Your task to perform on an android device: add a contact Image 0: 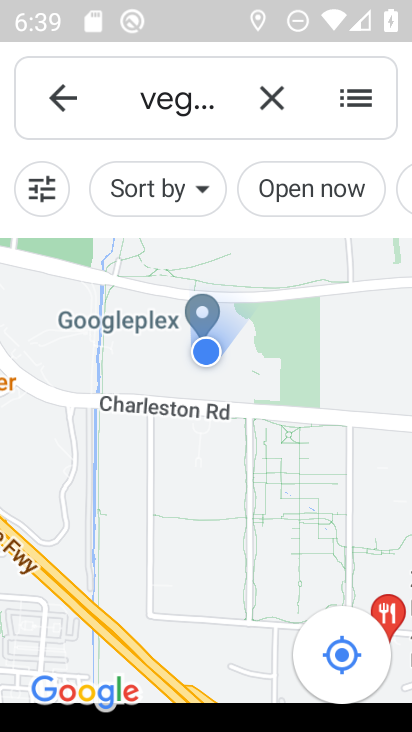
Step 0: press home button
Your task to perform on an android device: add a contact Image 1: 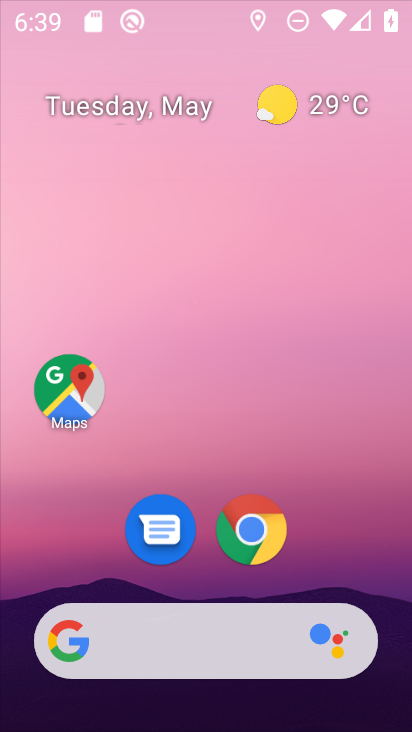
Step 1: drag from (349, 508) to (267, 99)
Your task to perform on an android device: add a contact Image 2: 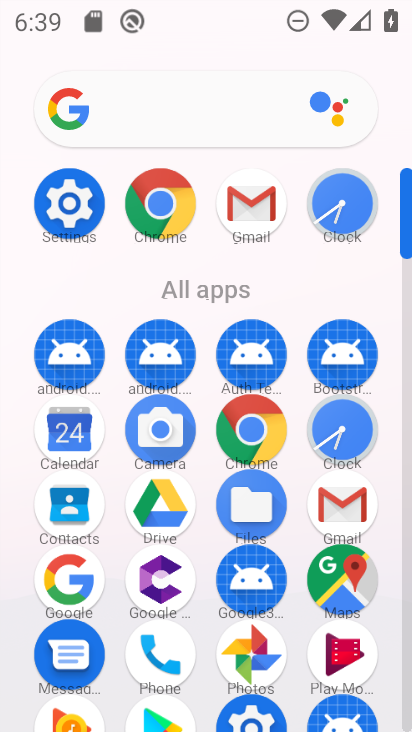
Step 2: click (64, 507)
Your task to perform on an android device: add a contact Image 3: 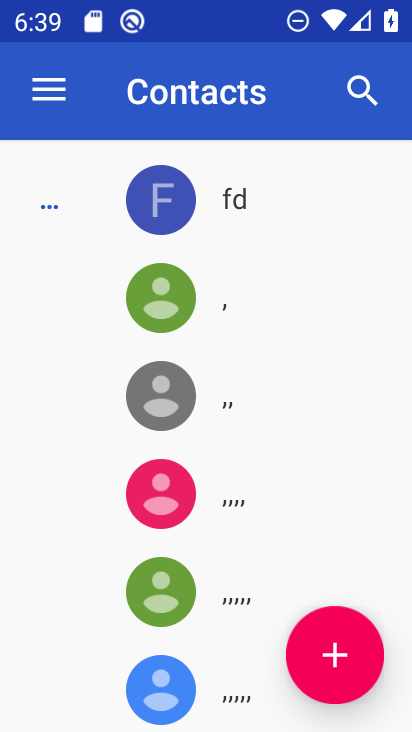
Step 3: click (342, 647)
Your task to perform on an android device: add a contact Image 4: 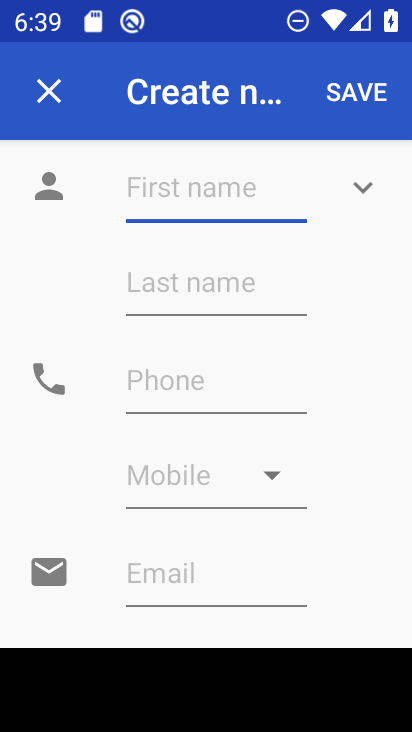
Step 4: type "rampal"
Your task to perform on an android device: add a contact Image 5: 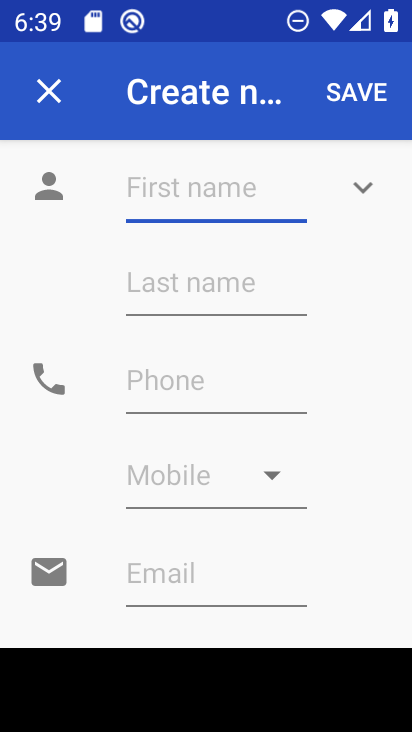
Step 5: click (367, 79)
Your task to perform on an android device: add a contact Image 6: 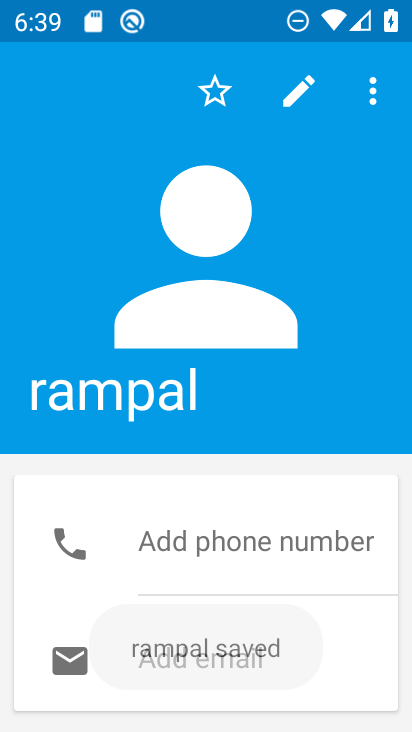
Step 6: task complete